Your task to perform on an android device: open app "YouTube Kids" Image 0: 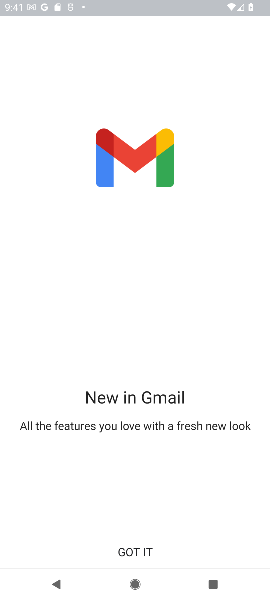
Step 0: press home button
Your task to perform on an android device: open app "YouTube Kids" Image 1: 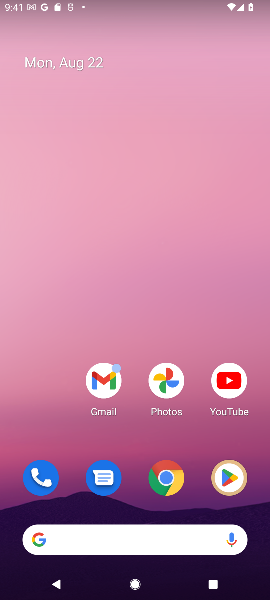
Step 1: click (228, 472)
Your task to perform on an android device: open app "YouTube Kids" Image 2: 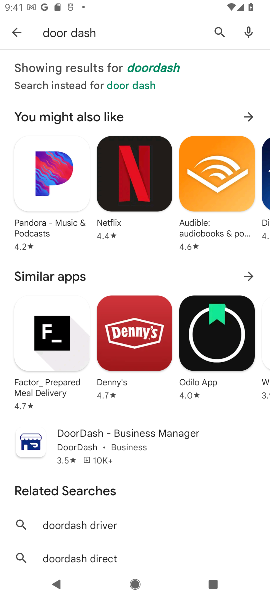
Step 2: click (205, 31)
Your task to perform on an android device: open app "YouTube Kids" Image 3: 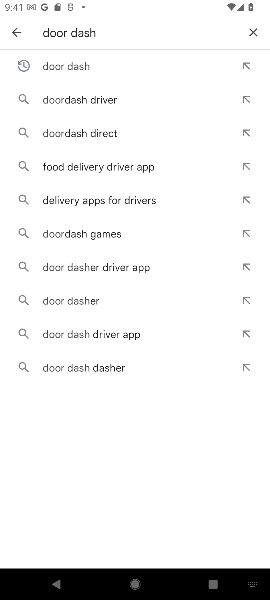
Step 3: click (248, 33)
Your task to perform on an android device: open app "YouTube Kids" Image 4: 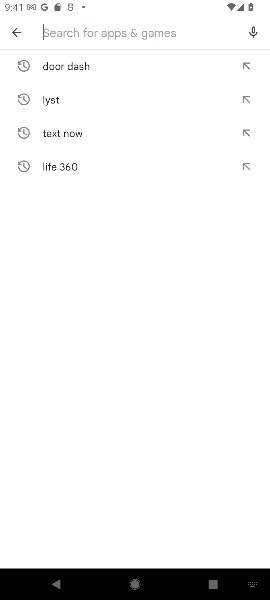
Step 4: type "youtube kid"
Your task to perform on an android device: open app "YouTube Kids" Image 5: 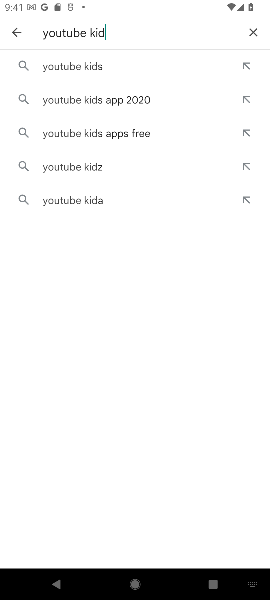
Step 5: click (124, 76)
Your task to perform on an android device: open app "YouTube Kids" Image 6: 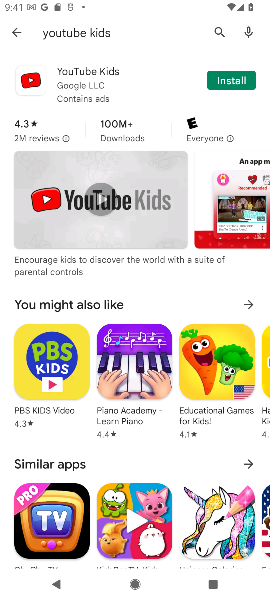
Step 6: click (221, 85)
Your task to perform on an android device: open app "YouTube Kids" Image 7: 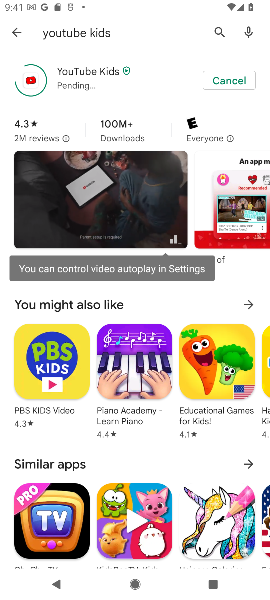
Step 7: task complete